Your task to perform on an android device: Open the stopwatch Image 0: 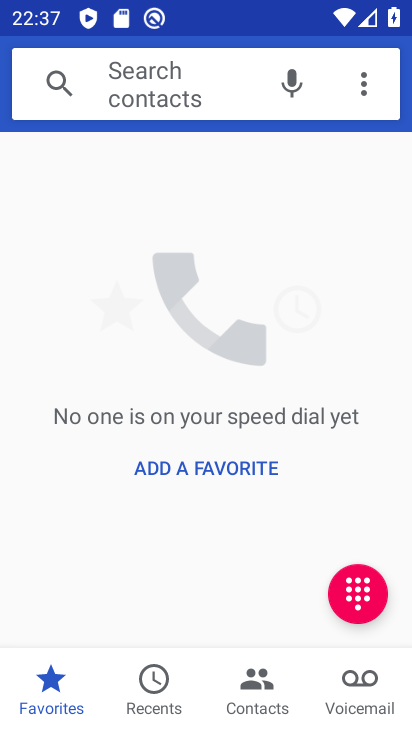
Step 0: press home button
Your task to perform on an android device: Open the stopwatch Image 1: 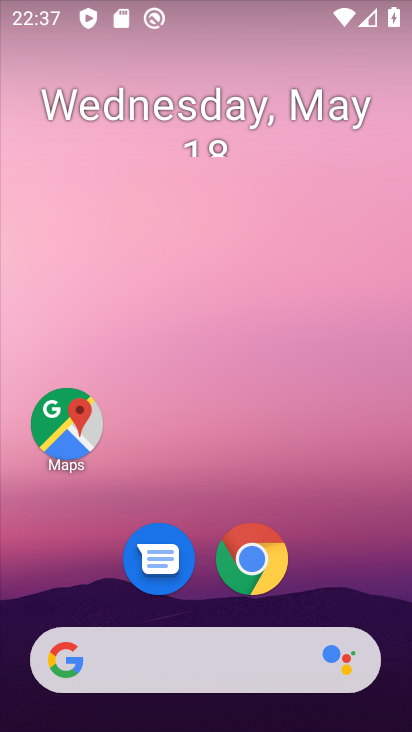
Step 1: drag from (321, 592) to (292, 237)
Your task to perform on an android device: Open the stopwatch Image 2: 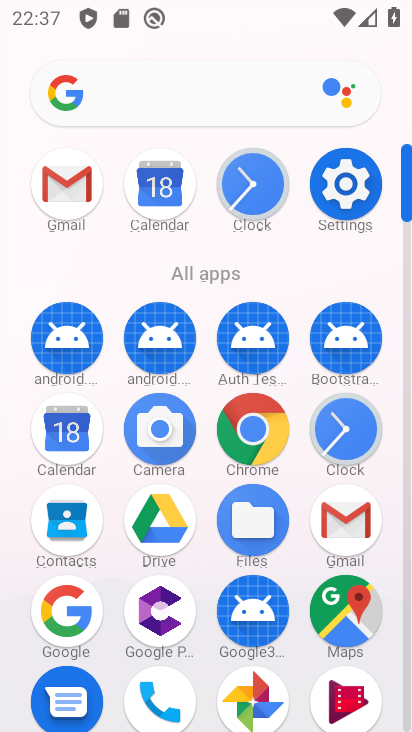
Step 2: click (250, 199)
Your task to perform on an android device: Open the stopwatch Image 3: 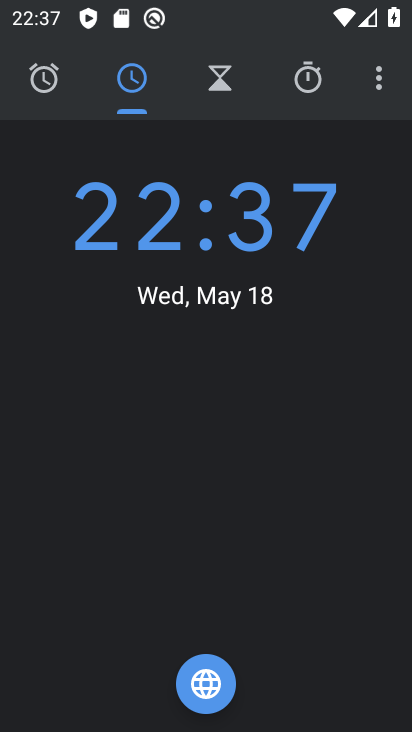
Step 3: click (309, 78)
Your task to perform on an android device: Open the stopwatch Image 4: 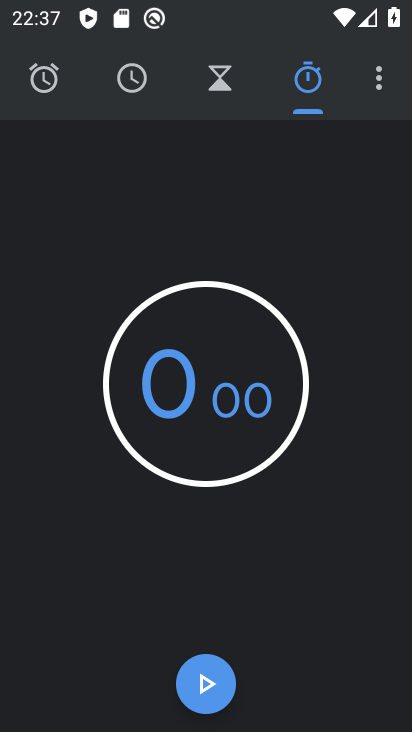
Step 4: task complete